Your task to perform on an android device: Do I have any events tomorrow? Image 0: 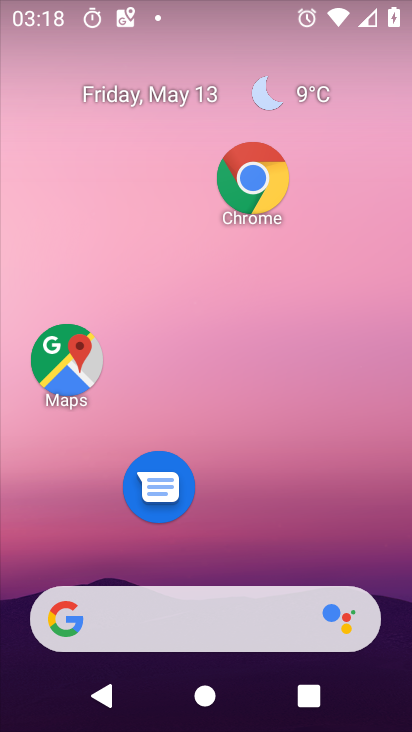
Step 0: drag from (270, 515) to (261, 66)
Your task to perform on an android device: Do I have any events tomorrow? Image 1: 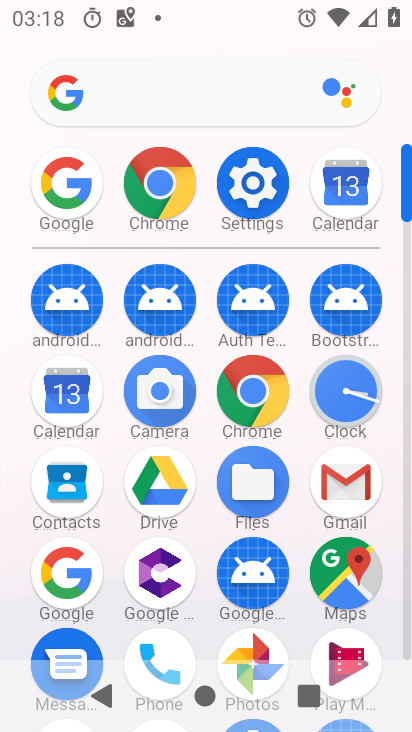
Step 1: click (70, 385)
Your task to perform on an android device: Do I have any events tomorrow? Image 2: 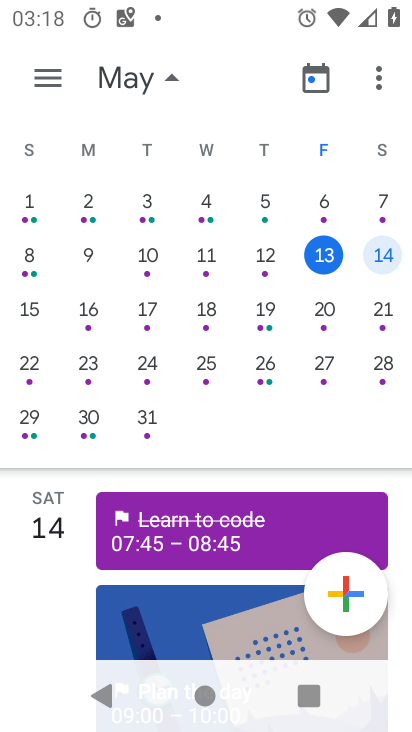
Step 2: drag from (367, 417) to (287, 420)
Your task to perform on an android device: Do I have any events tomorrow? Image 3: 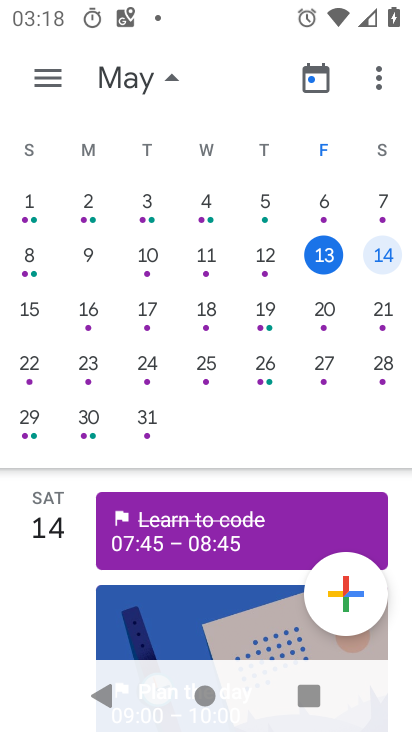
Step 3: click (377, 249)
Your task to perform on an android device: Do I have any events tomorrow? Image 4: 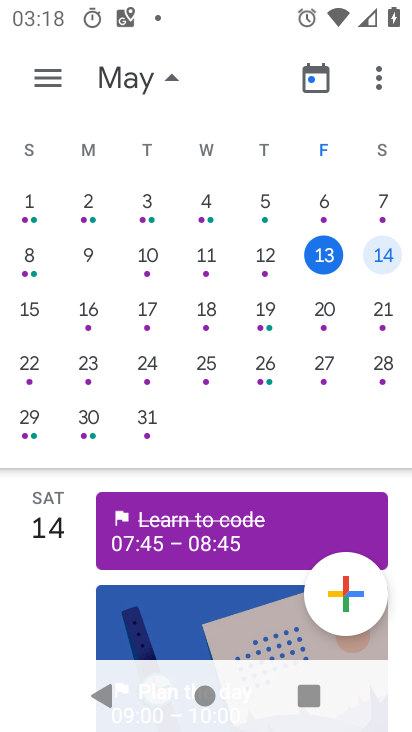
Step 4: task complete